Your task to perform on an android device: find photos in the google photos app Image 0: 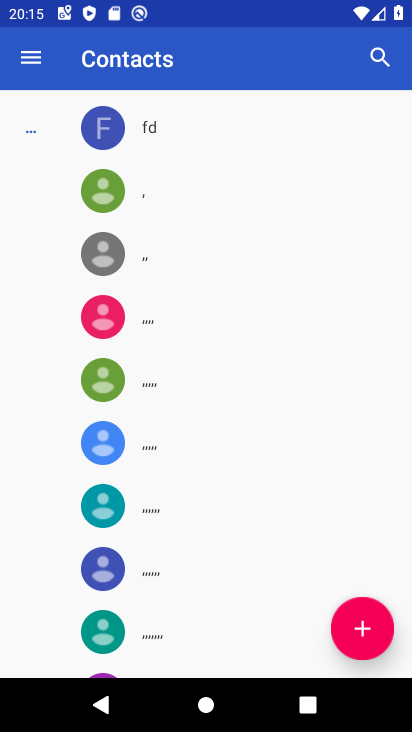
Step 0: press home button
Your task to perform on an android device: find photos in the google photos app Image 1: 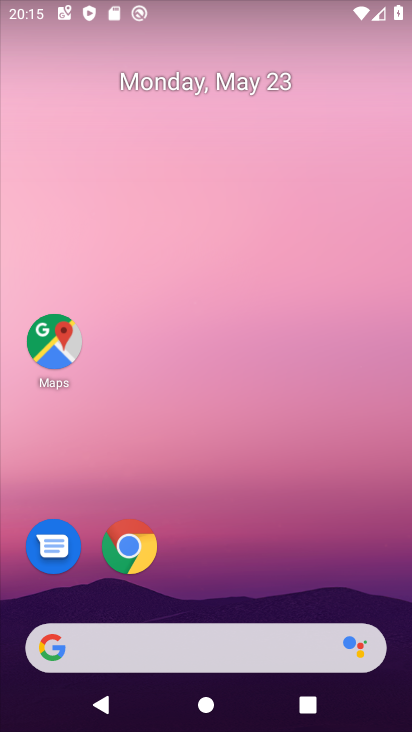
Step 1: drag from (375, 583) to (377, 149)
Your task to perform on an android device: find photos in the google photos app Image 2: 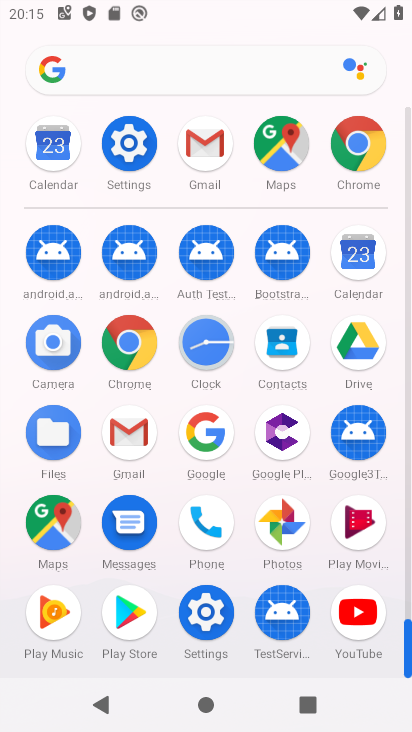
Step 2: click (290, 539)
Your task to perform on an android device: find photos in the google photos app Image 3: 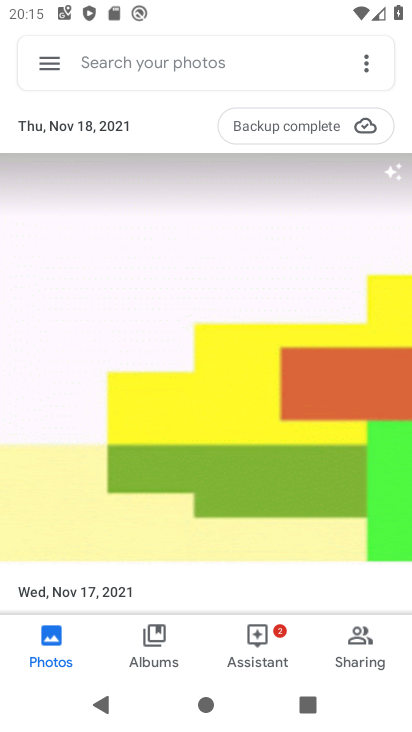
Step 3: click (251, 409)
Your task to perform on an android device: find photos in the google photos app Image 4: 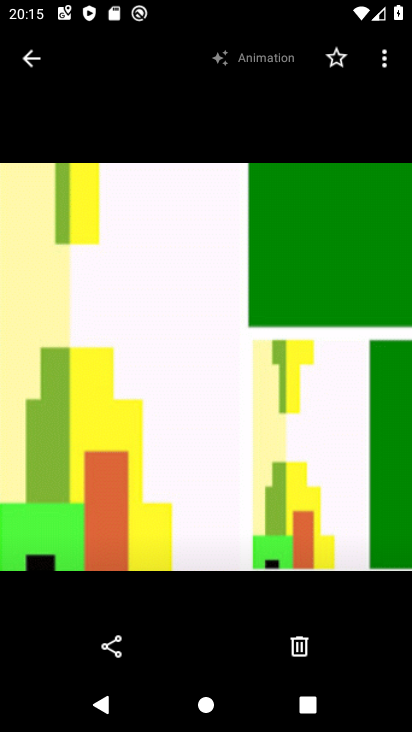
Step 4: task complete